Your task to perform on an android device: open a new tab in the chrome app Image 0: 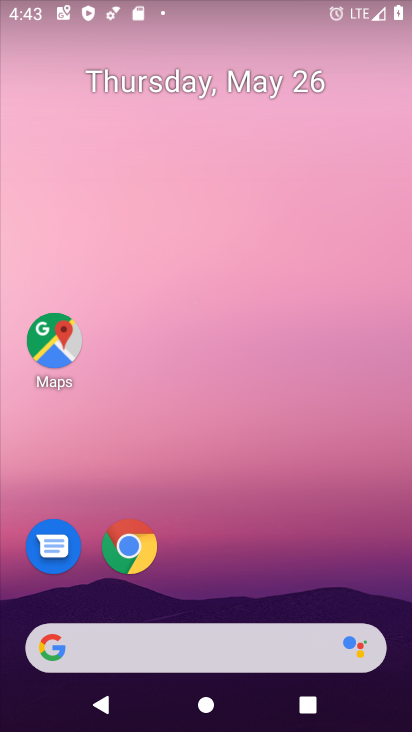
Step 0: click (136, 544)
Your task to perform on an android device: open a new tab in the chrome app Image 1: 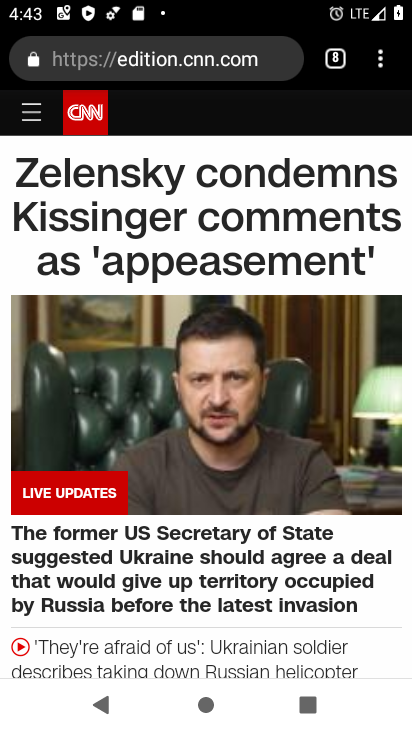
Step 1: click (341, 59)
Your task to perform on an android device: open a new tab in the chrome app Image 2: 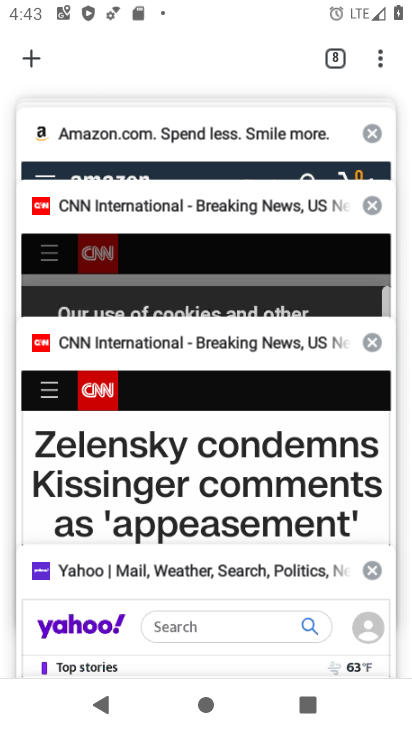
Step 2: click (31, 55)
Your task to perform on an android device: open a new tab in the chrome app Image 3: 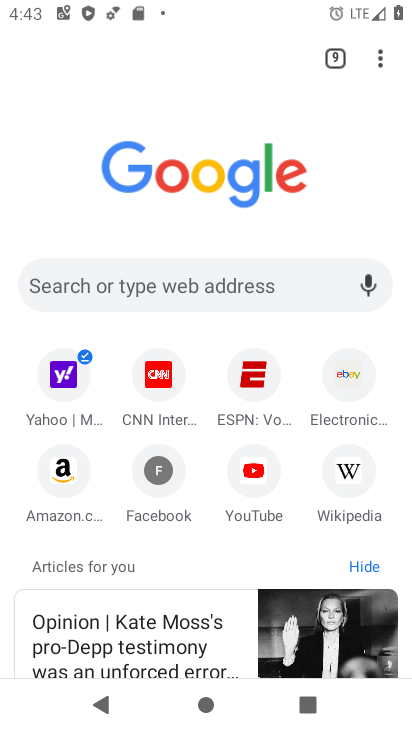
Step 3: task complete